Your task to perform on an android device: Open Android settings Image 0: 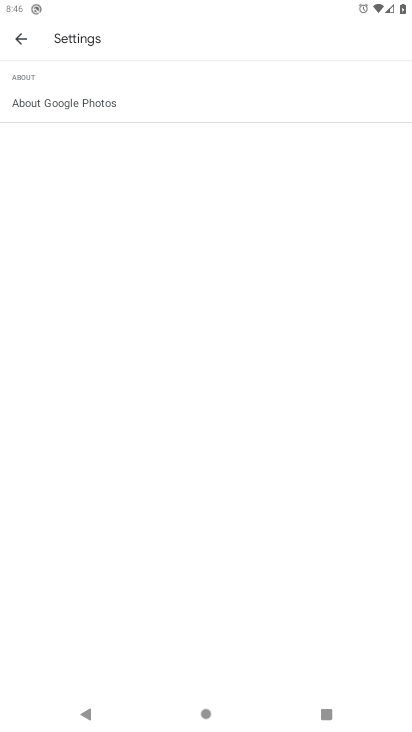
Step 0: press home button
Your task to perform on an android device: Open Android settings Image 1: 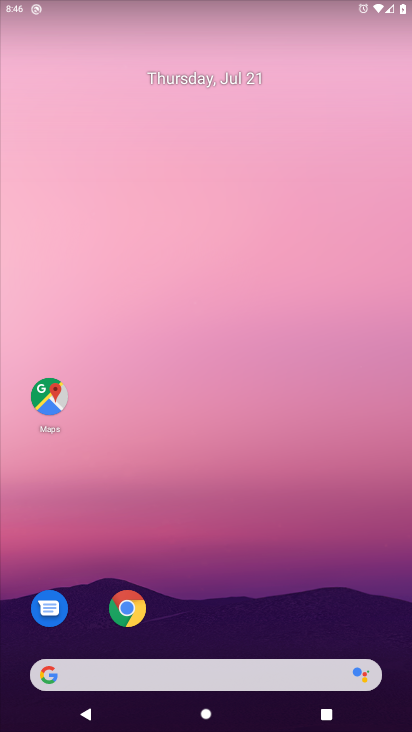
Step 1: drag from (41, 708) to (173, 185)
Your task to perform on an android device: Open Android settings Image 2: 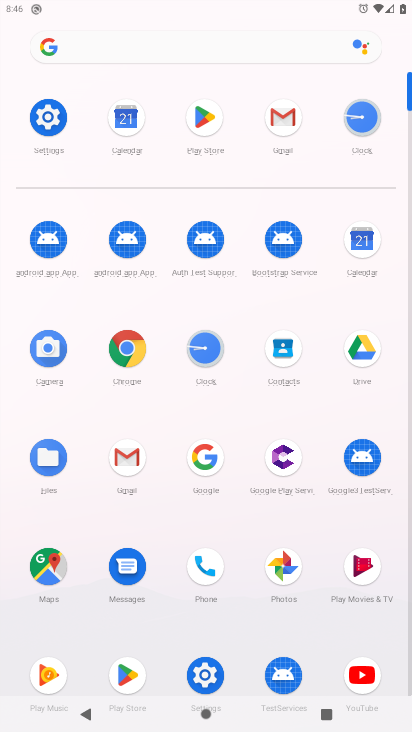
Step 2: drag from (171, 624) to (230, 297)
Your task to perform on an android device: Open Android settings Image 3: 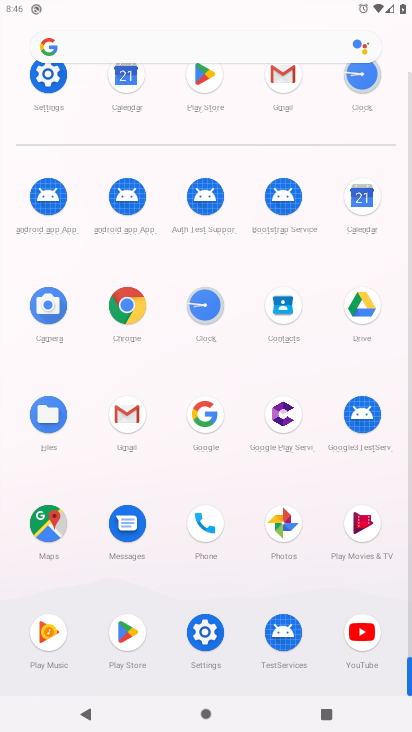
Step 3: click (206, 636)
Your task to perform on an android device: Open Android settings Image 4: 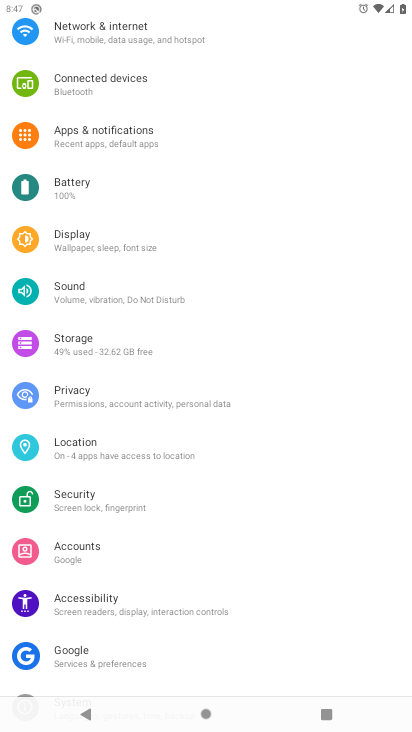
Step 4: drag from (234, 666) to (299, 168)
Your task to perform on an android device: Open Android settings Image 5: 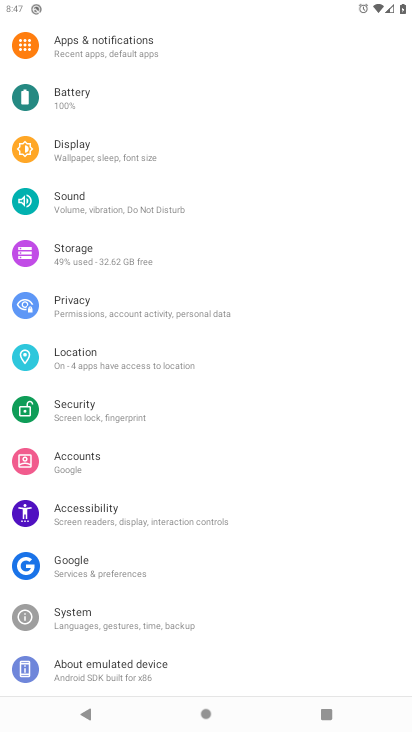
Step 5: click (117, 659)
Your task to perform on an android device: Open Android settings Image 6: 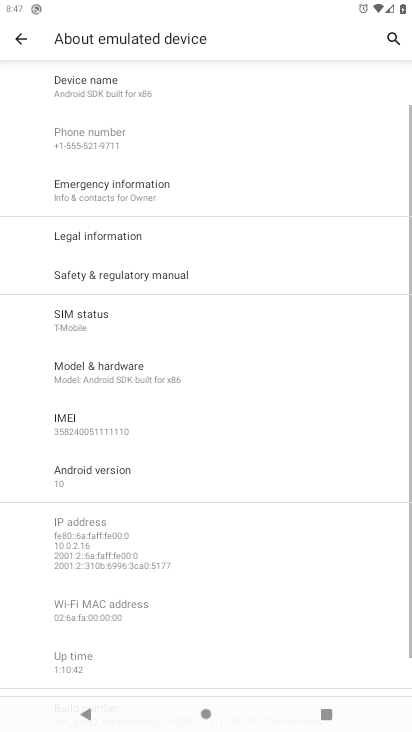
Step 6: click (114, 475)
Your task to perform on an android device: Open Android settings Image 7: 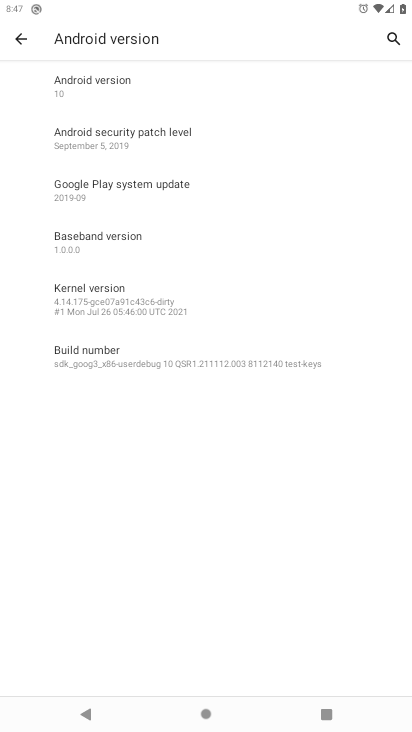
Step 7: task complete